Your task to perform on an android device: check data usage Image 0: 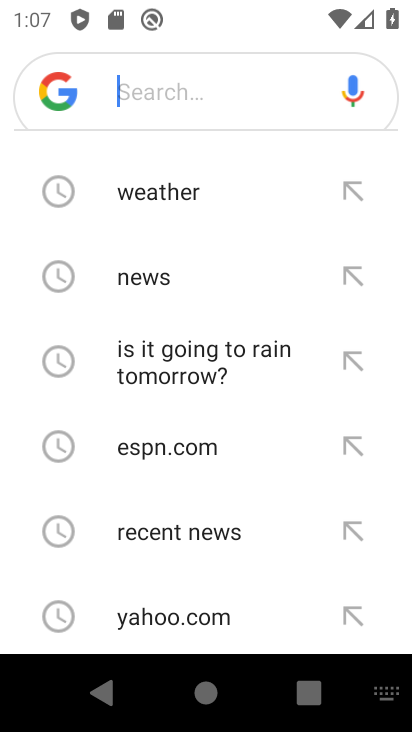
Step 0: press home button
Your task to perform on an android device: check data usage Image 1: 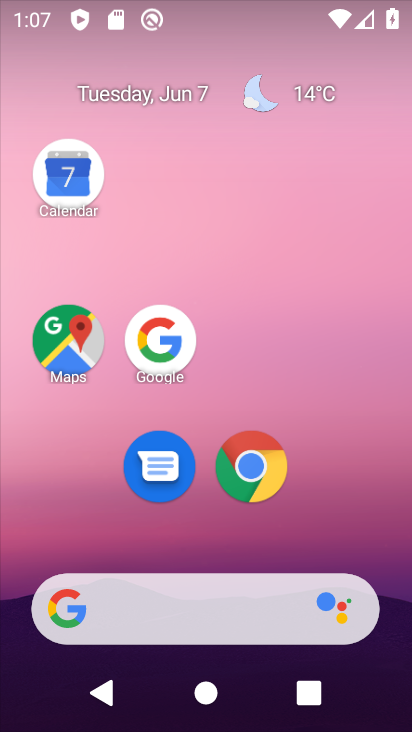
Step 1: drag from (81, 169) to (167, 170)
Your task to perform on an android device: check data usage Image 2: 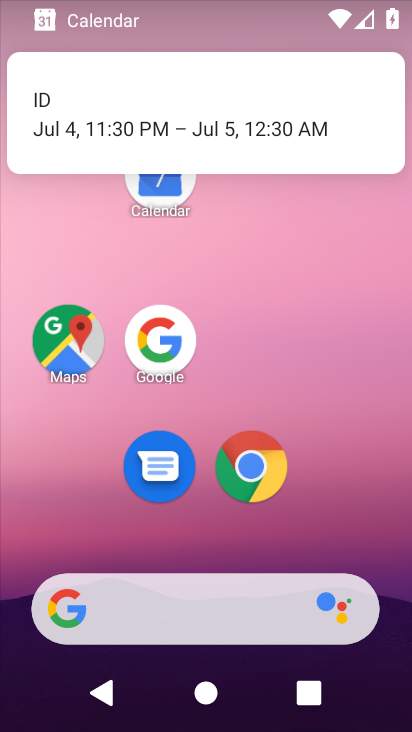
Step 2: drag from (335, 253) to (323, 140)
Your task to perform on an android device: check data usage Image 3: 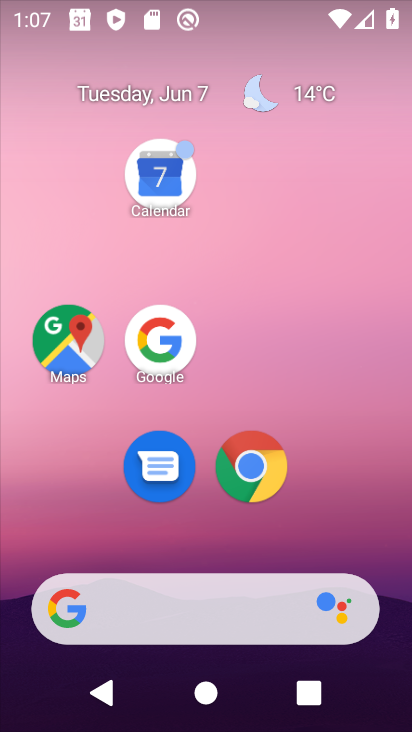
Step 3: drag from (337, 541) to (304, 93)
Your task to perform on an android device: check data usage Image 4: 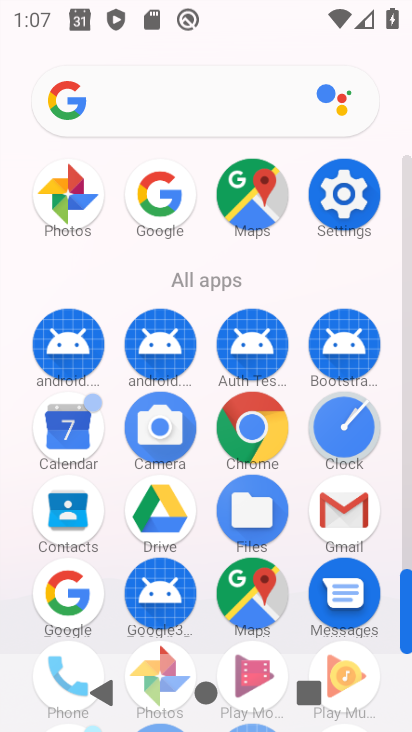
Step 4: drag from (338, 177) to (111, 196)
Your task to perform on an android device: check data usage Image 5: 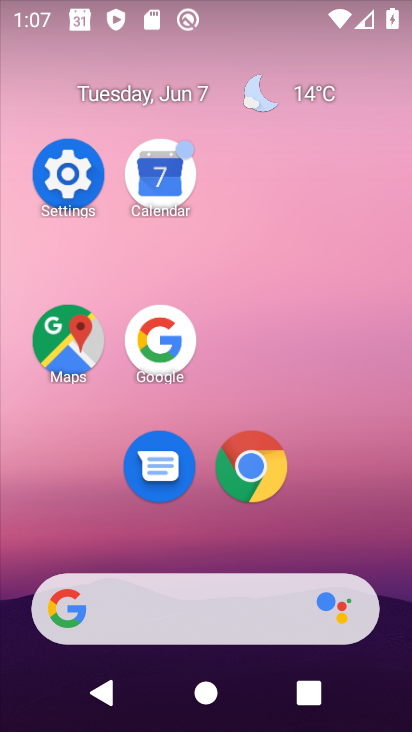
Step 5: click (78, 171)
Your task to perform on an android device: check data usage Image 6: 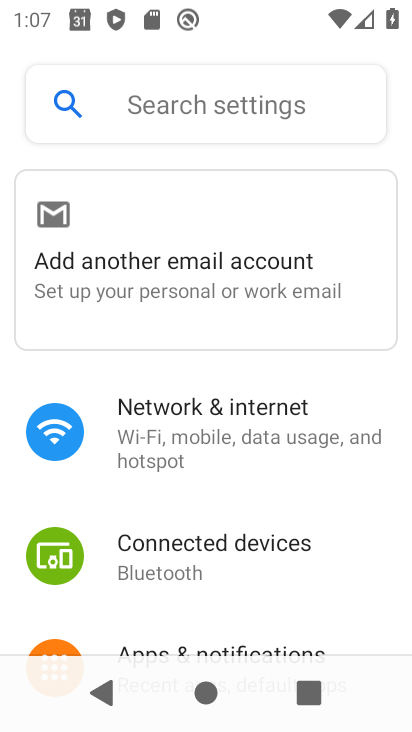
Step 6: click (258, 427)
Your task to perform on an android device: check data usage Image 7: 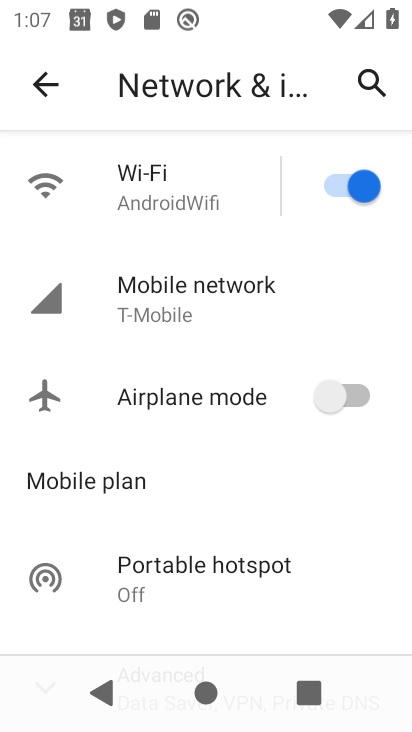
Step 7: click (203, 283)
Your task to perform on an android device: check data usage Image 8: 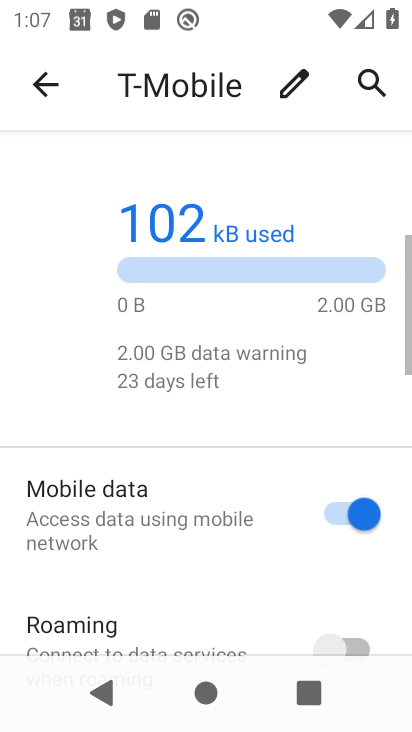
Step 8: task complete